Your task to perform on an android device: turn off location history Image 0: 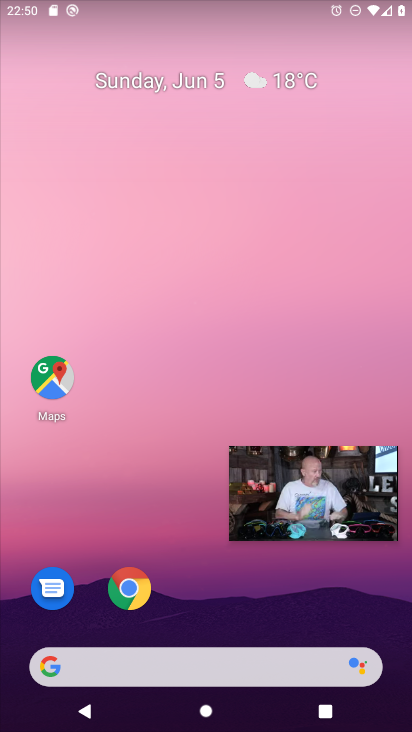
Step 0: drag from (170, 504) to (200, 142)
Your task to perform on an android device: turn off location history Image 1: 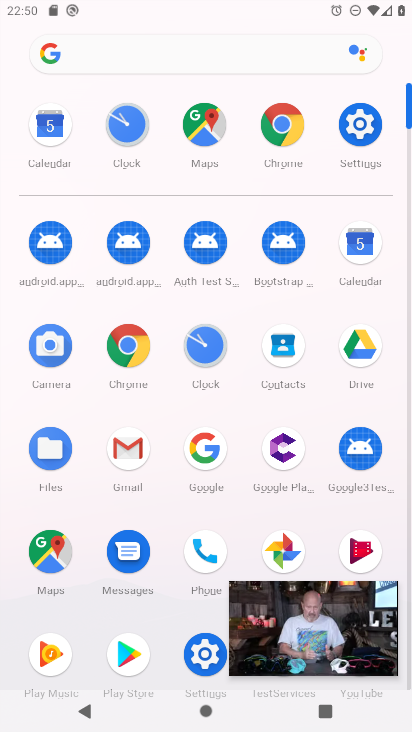
Step 1: click (358, 128)
Your task to perform on an android device: turn off location history Image 2: 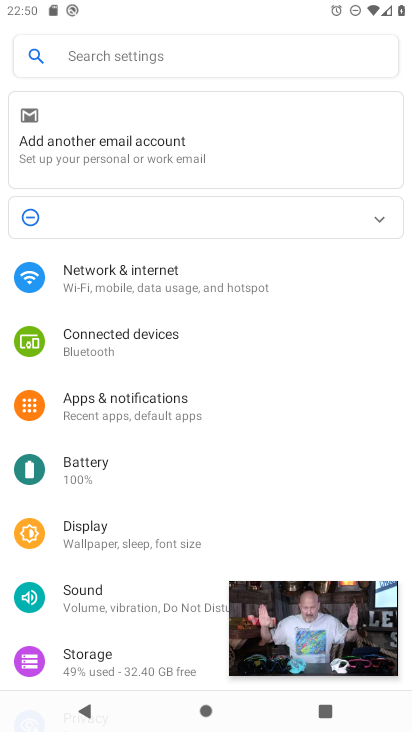
Step 2: drag from (323, 437) to (332, 307)
Your task to perform on an android device: turn off location history Image 3: 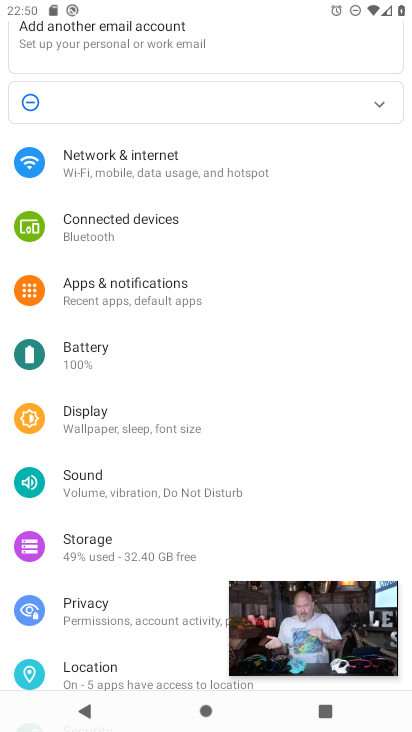
Step 3: drag from (331, 451) to (336, 318)
Your task to perform on an android device: turn off location history Image 4: 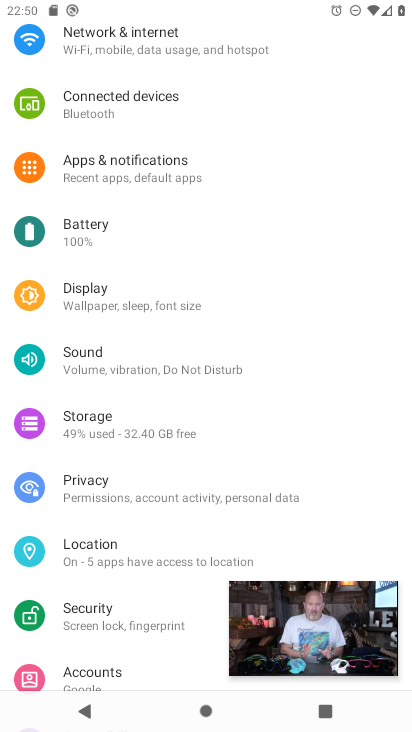
Step 4: drag from (307, 443) to (316, 316)
Your task to perform on an android device: turn off location history Image 5: 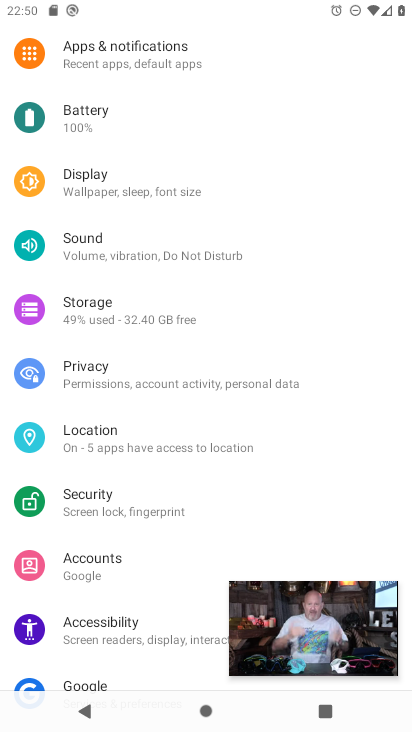
Step 5: drag from (333, 464) to (341, 295)
Your task to perform on an android device: turn off location history Image 6: 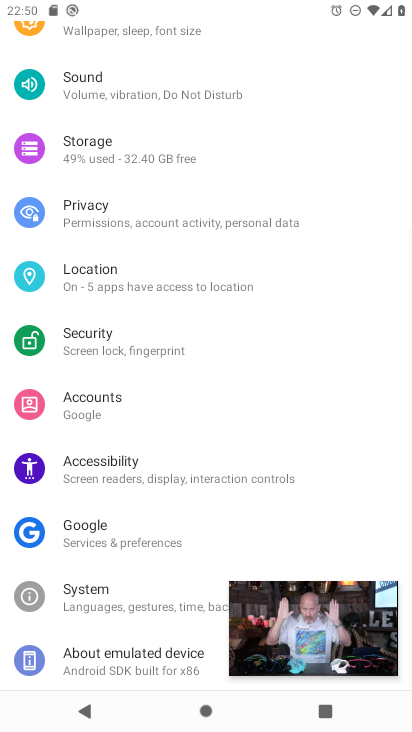
Step 6: drag from (347, 495) to (364, 280)
Your task to perform on an android device: turn off location history Image 7: 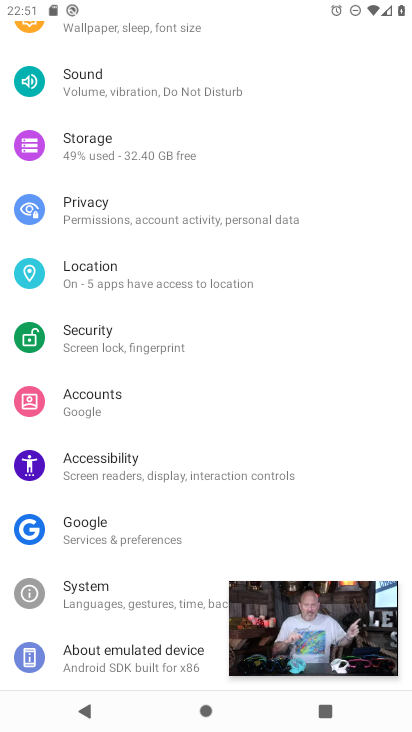
Step 7: click (200, 267)
Your task to perform on an android device: turn off location history Image 8: 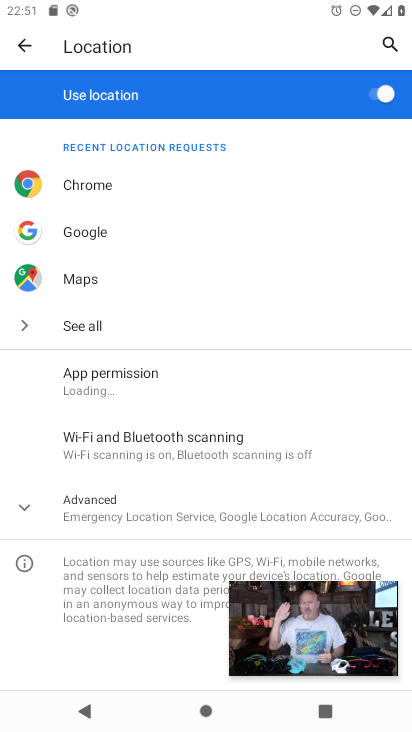
Step 8: drag from (281, 500) to (296, 342)
Your task to perform on an android device: turn off location history Image 9: 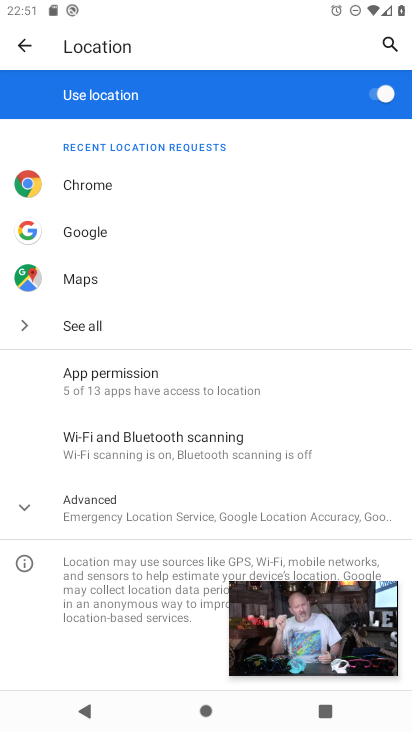
Step 9: click (181, 520)
Your task to perform on an android device: turn off location history Image 10: 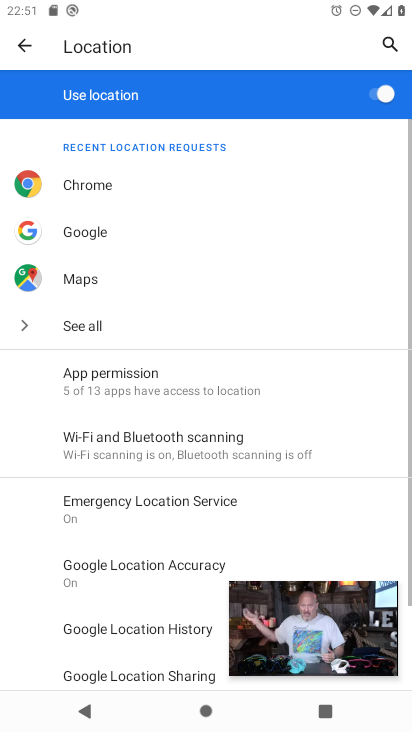
Step 10: drag from (250, 497) to (258, 369)
Your task to perform on an android device: turn off location history Image 11: 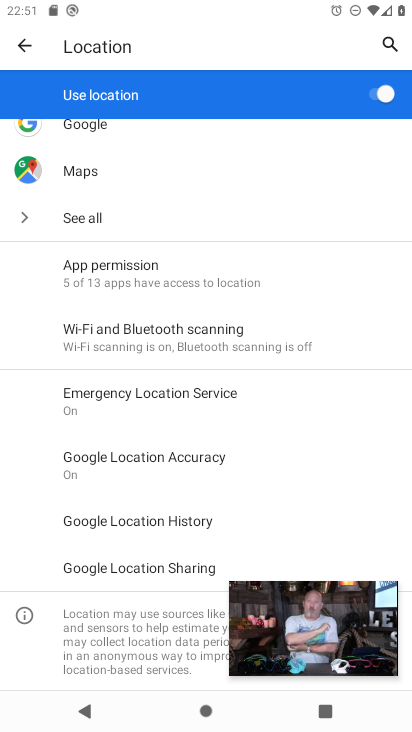
Step 11: click (192, 531)
Your task to perform on an android device: turn off location history Image 12: 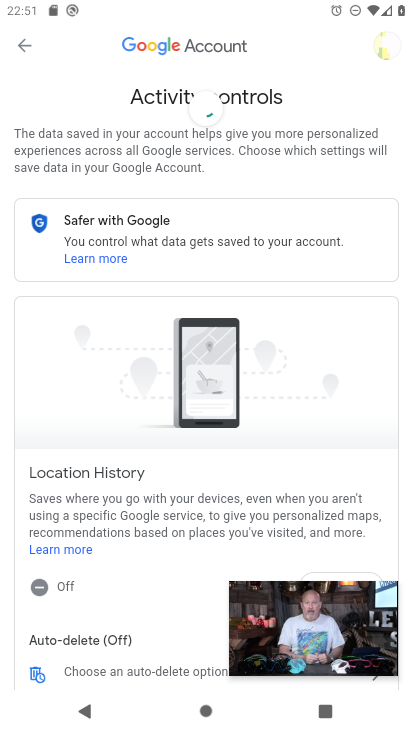
Step 12: task complete